Your task to perform on an android device: toggle wifi Image 0: 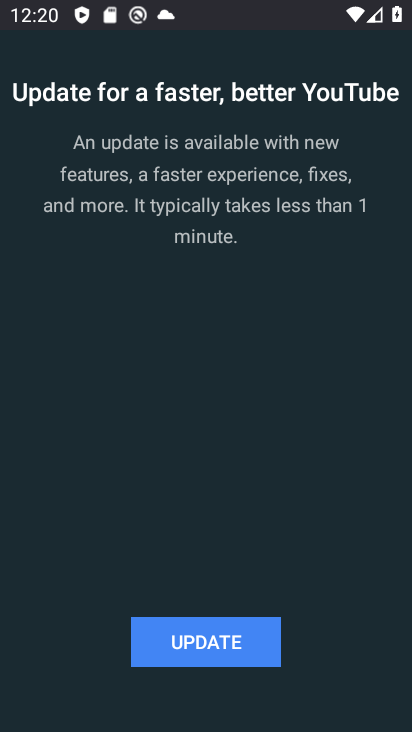
Step 0: press back button
Your task to perform on an android device: toggle wifi Image 1: 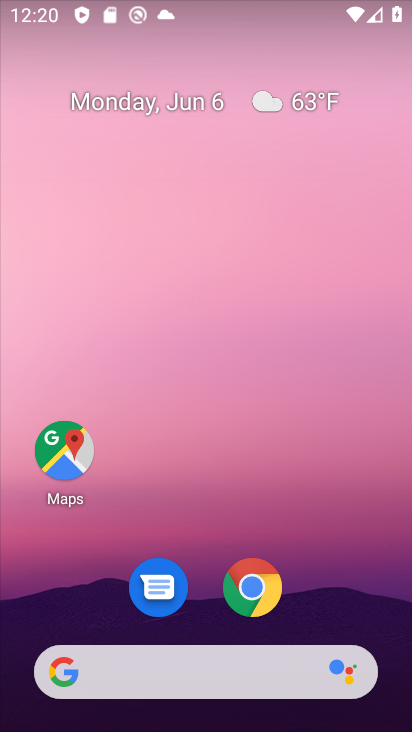
Step 1: drag from (358, 607) to (303, 187)
Your task to perform on an android device: toggle wifi Image 2: 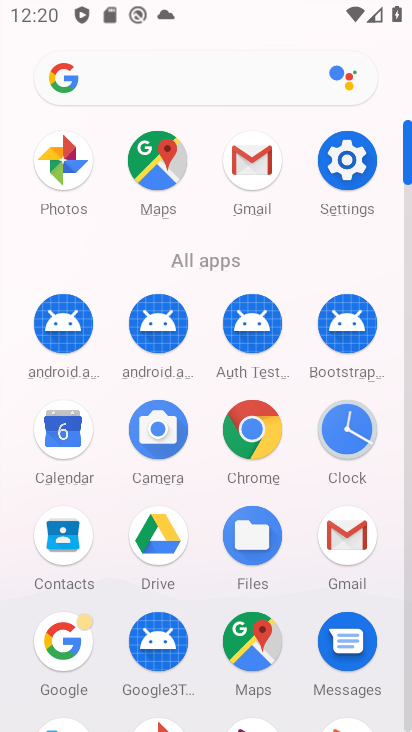
Step 2: click (326, 168)
Your task to perform on an android device: toggle wifi Image 3: 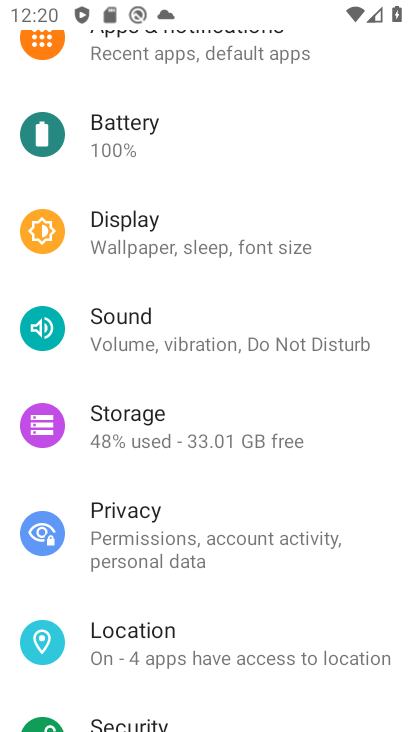
Step 3: drag from (280, 103) to (244, 611)
Your task to perform on an android device: toggle wifi Image 4: 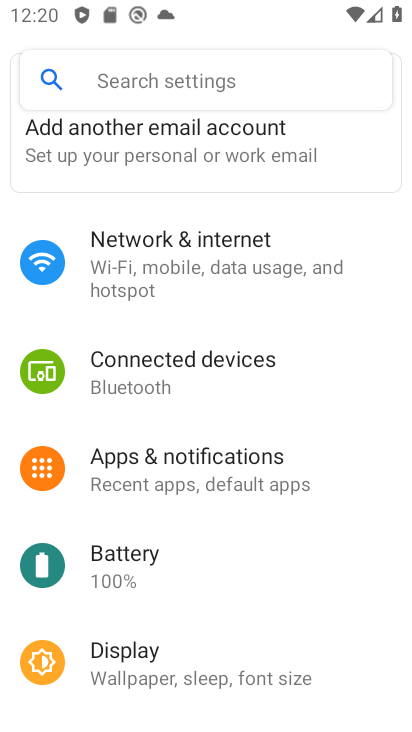
Step 4: click (273, 287)
Your task to perform on an android device: toggle wifi Image 5: 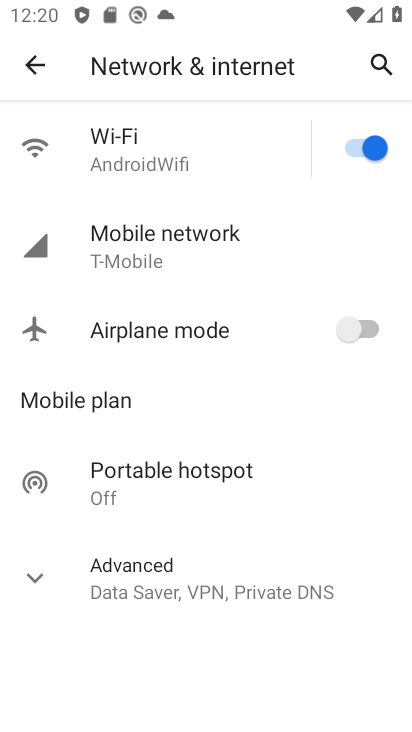
Step 5: click (377, 150)
Your task to perform on an android device: toggle wifi Image 6: 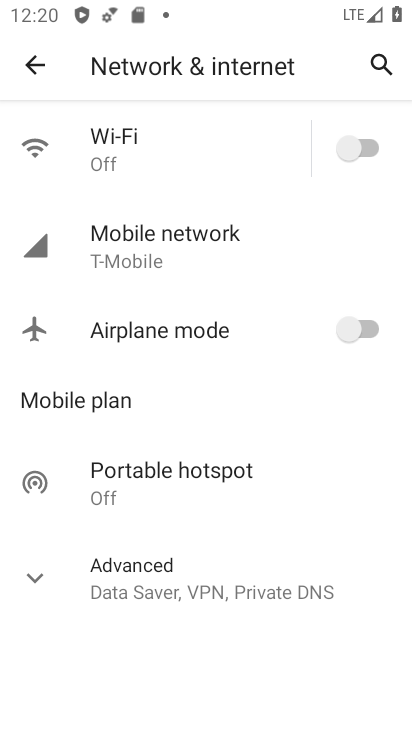
Step 6: task complete